Your task to perform on an android device: What's the weather today? Image 0: 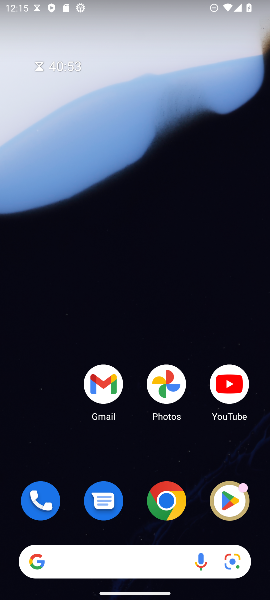
Step 0: click (93, 563)
Your task to perform on an android device: What's the weather today? Image 1: 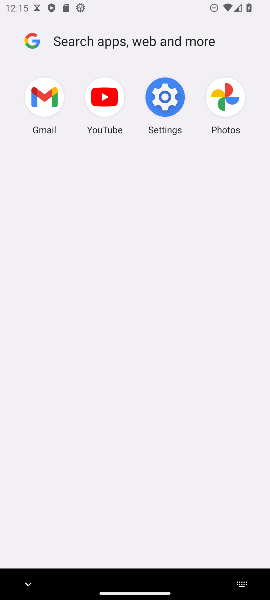
Step 1: type "whheather"
Your task to perform on an android device: What's the weather today? Image 2: 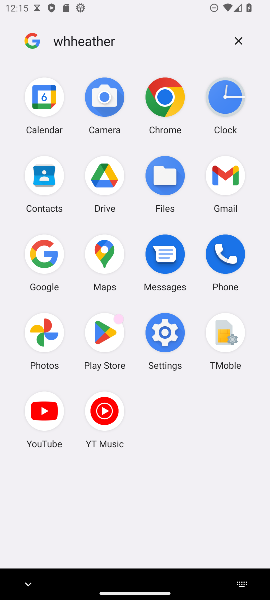
Step 2: click (66, 39)
Your task to perform on an android device: What's the weather today? Image 3: 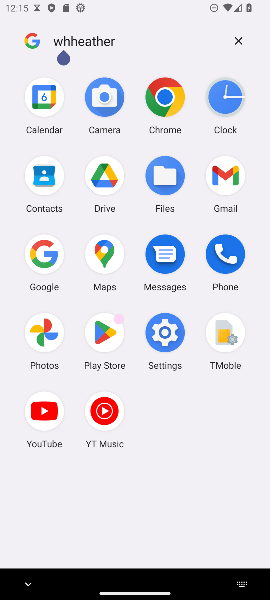
Step 3: click (251, 40)
Your task to perform on an android device: What's the weather today? Image 4: 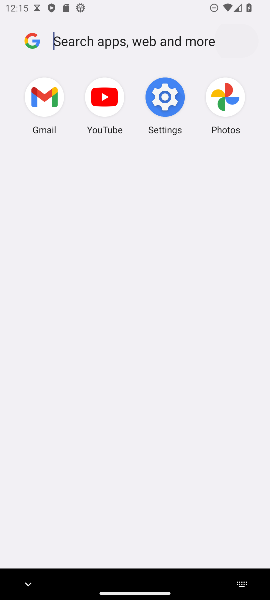
Step 4: click (241, 40)
Your task to perform on an android device: What's the weather today? Image 5: 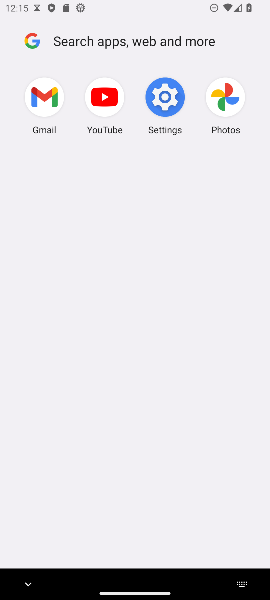
Step 5: type "wheather"
Your task to perform on an android device: What's the weather today? Image 6: 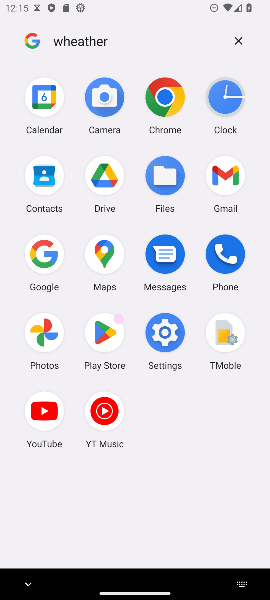
Step 6: click (36, 261)
Your task to perform on an android device: What's the weather today? Image 7: 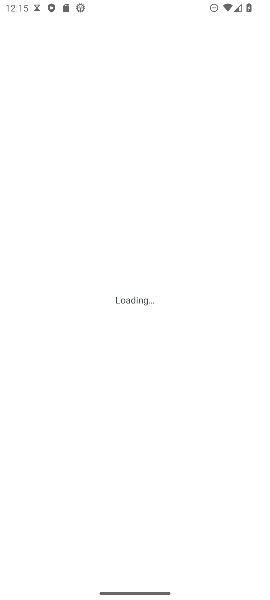
Step 7: task complete